Your task to perform on an android device: Open Yahoo.com Image 0: 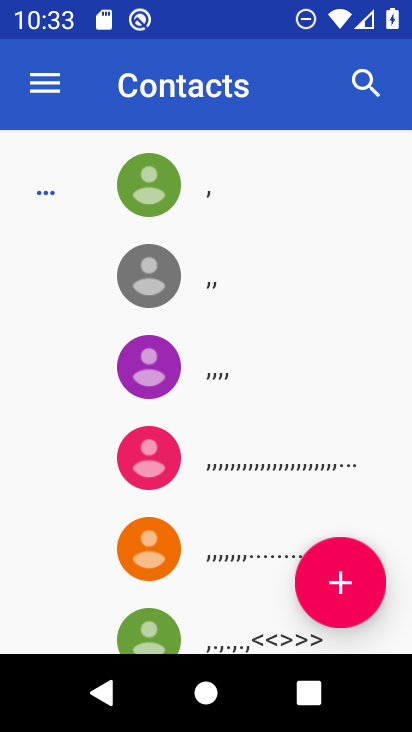
Step 0: press home button
Your task to perform on an android device: Open Yahoo.com Image 1: 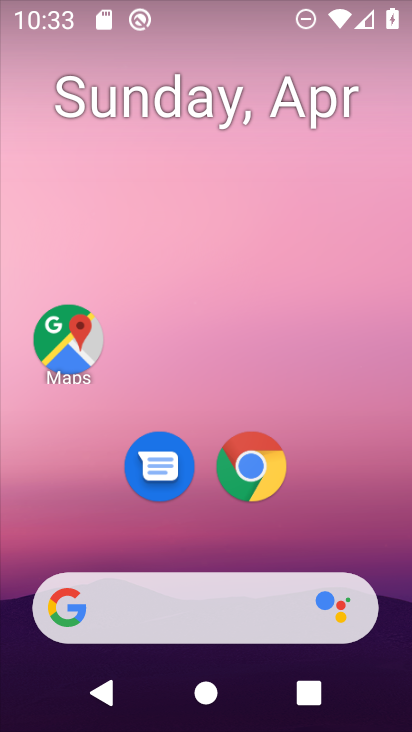
Step 1: drag from (343, 538) to (366, 119)
Your task to perform on an android device: Open Yahoo.com Image 2: 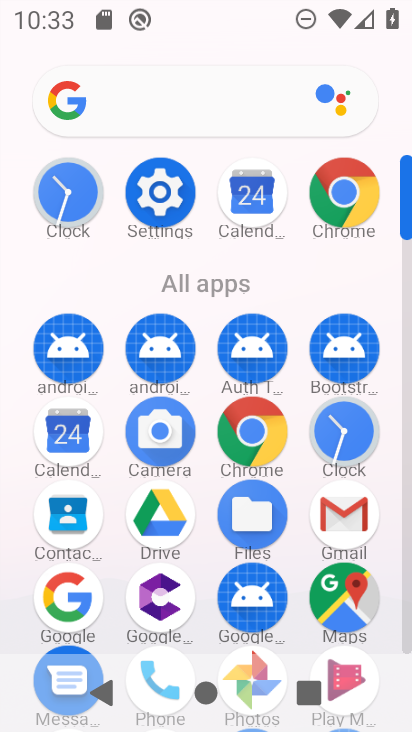
Step 2: click (353, 194)
Your task to perform on an android device: Open Yahoo.com Image 3: 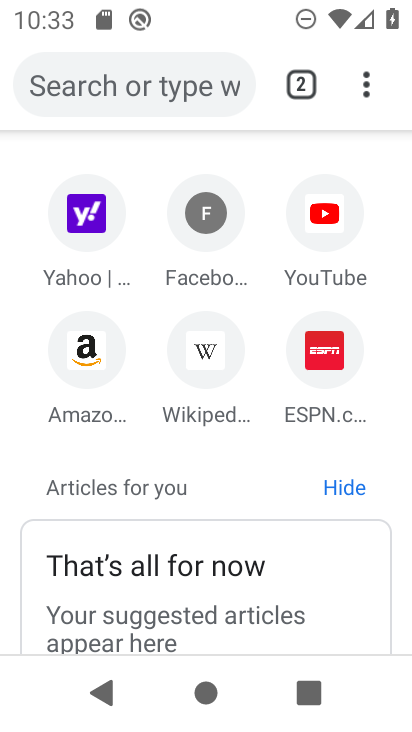
Step 3: click (82, 223)
Your task to perform on an android device: Open Yahoo.com Image 4: 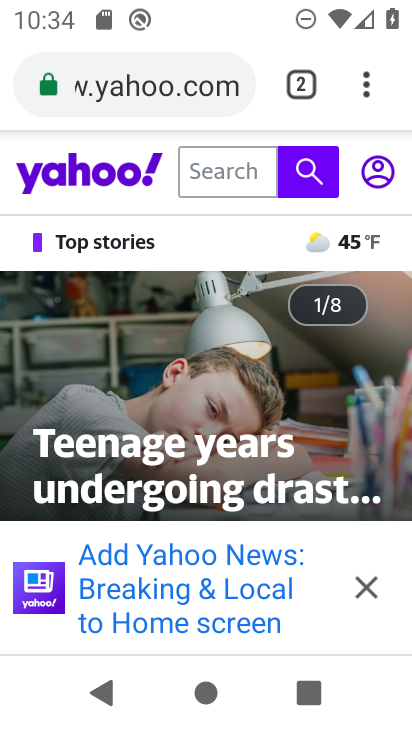
Step 4: task complete